Your task to perform on an android device: choose inbox layout in the gmail app Image 0: 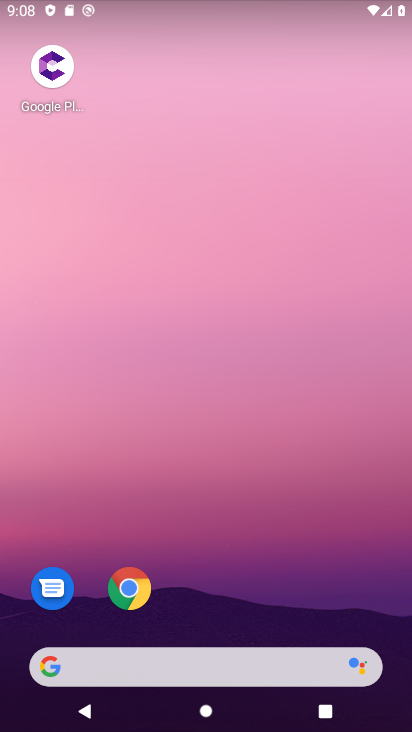
Step 0: drag from (276, 519) to (291, 58)
Your task to perform on an android device: choose inbox layout in the gmail app Image 1: 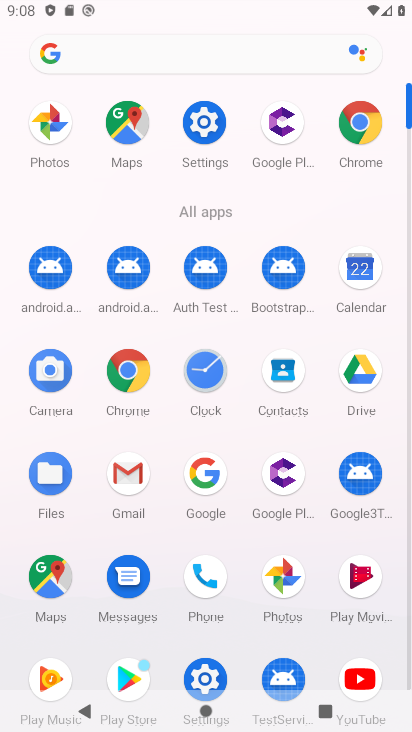
Step 1: click (129, 475)
Your task to perform on an android device: choose inbox layout in the gmail app Image 2: 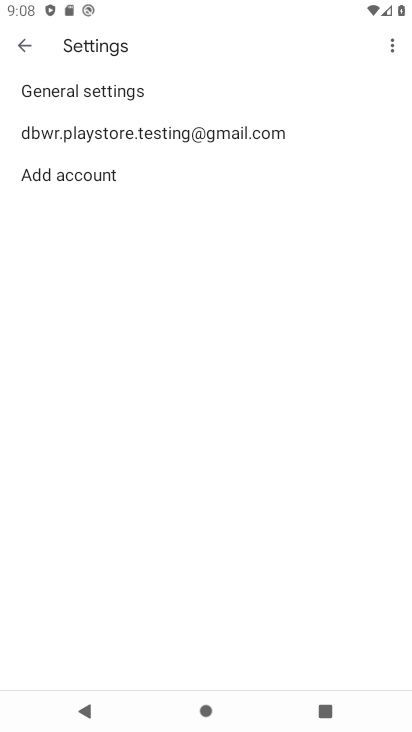
Step 2: click (103, 132)
Your task to perform on an android device: choose inbox layout in the gmail app Image 3: 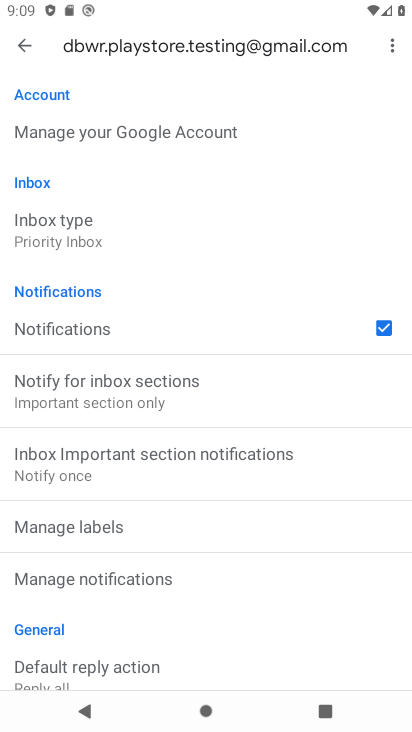
Step 3: click (59, 245)
Your task to perform on an android device: choose inbox layout in the gmail app Image 4: 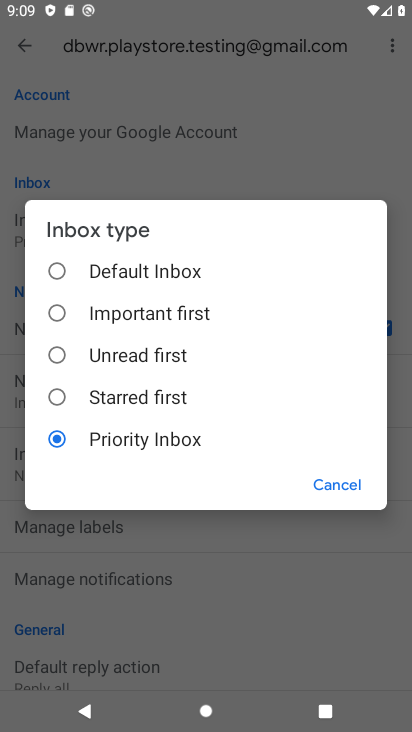
Step 4: click (126, 311)
Your task to perform on an android device: choose inbox layout in the gmail app Image 5: 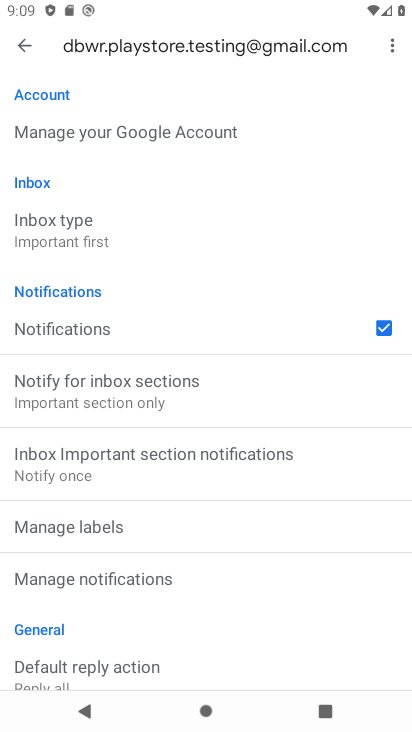
Step 5: task complete